Your task to perform on an android device: add a contact Image 0: 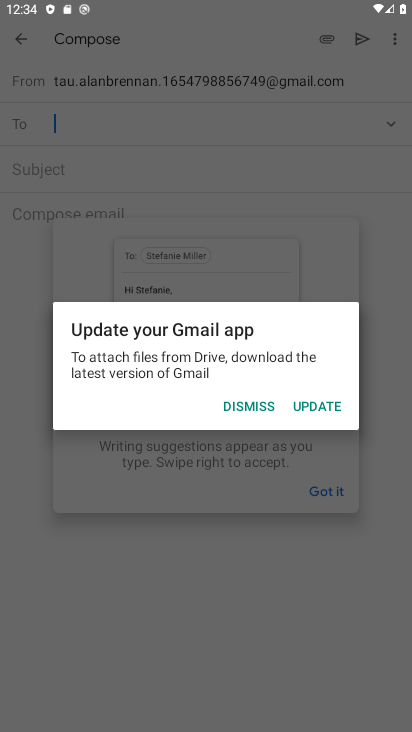
Step 0: press home button
Your task to perform on an android device: add a contact Image 1: 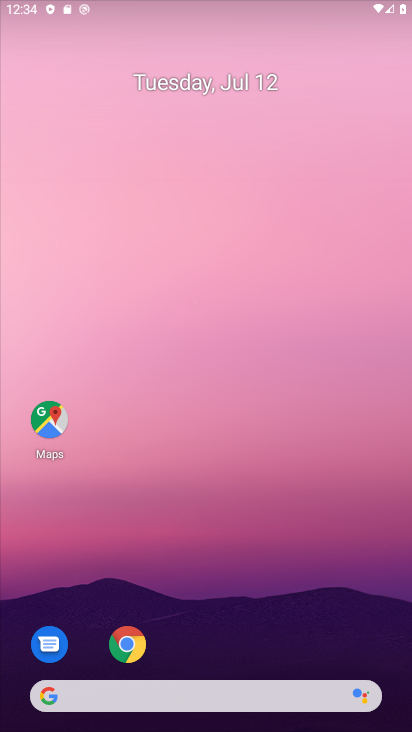
Step 1: drag from (172, 655) to (183, 21)
Your task to perform on an android device: add a contact Image 2: 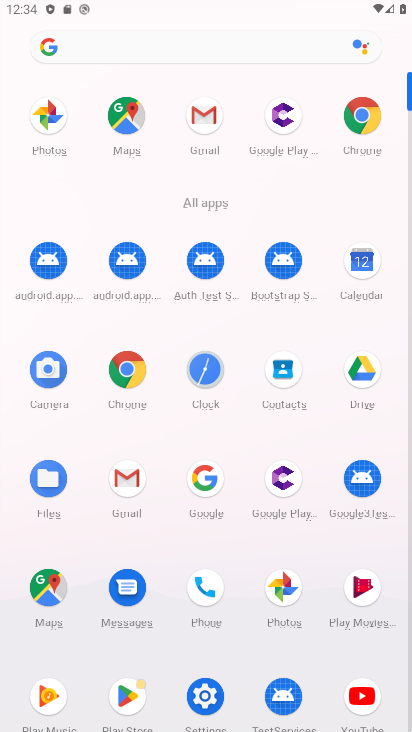
Step 2: click (285, 393)
Your task to perform on an android device: add a contact Image 3: 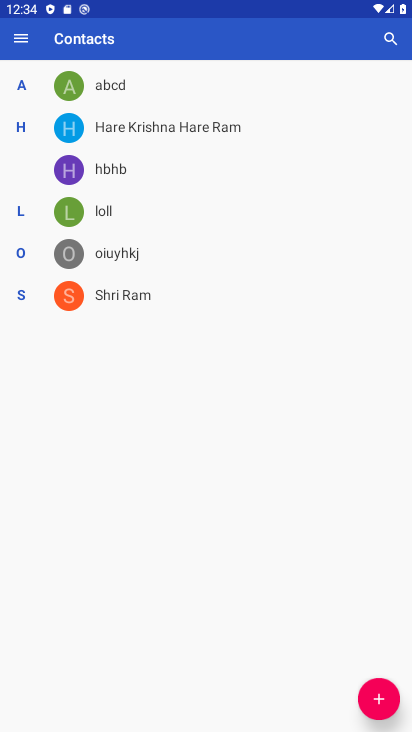
Step 3: click (394, 692)
Your task to perform on an android device: add a contact Image 4: 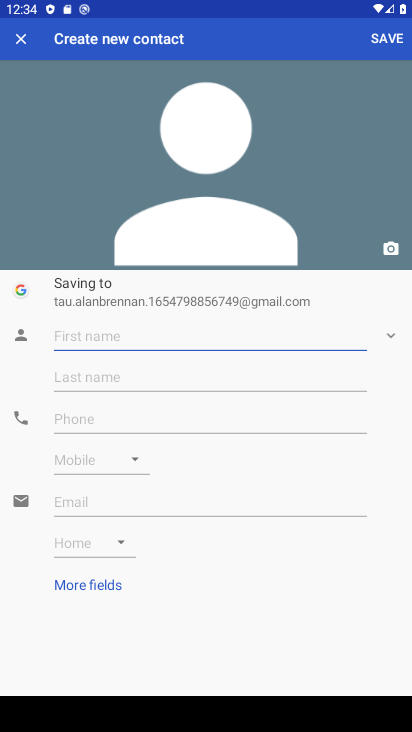
Step 4: type "cleaver"
Your task to perform on an android device: add a contact Image 5: 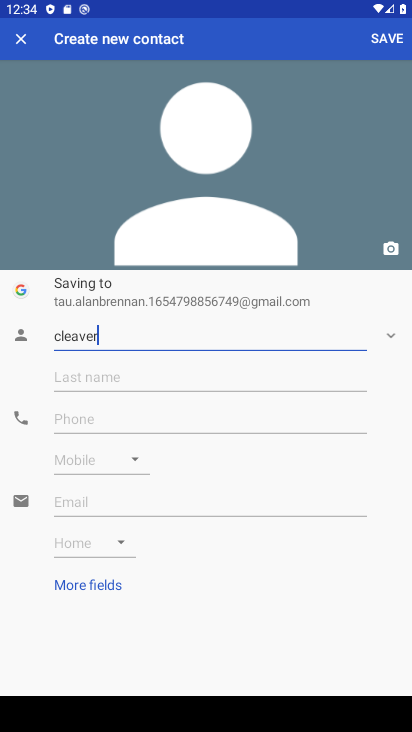
Step 5: click (379, 33)
Your task to perform on an android device: add a contact Image 6: 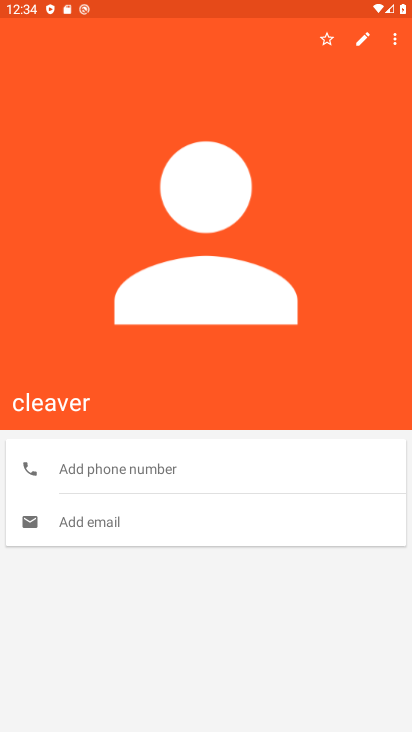
Step 6: task complete